Your task to perform on an android device: Empty the shopping cart on target. Search for "macbook pro 15 inch" on target, select the first entry, and add it to the cart. Image 0: 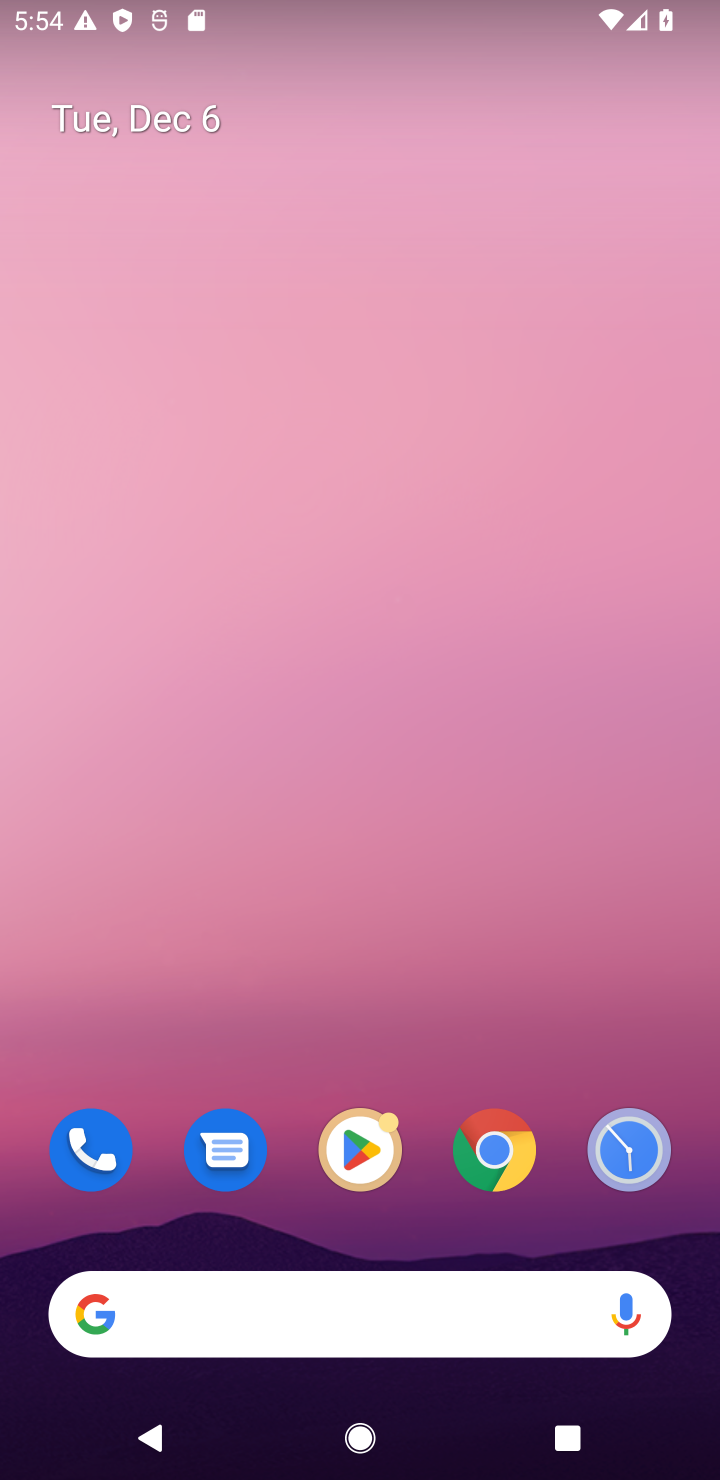
Step 0: click (500, 1166)
Your task to perform on an android device: Empty the shopping cart on target. Search for "macbook pro 15 inch" on target, select the first entry, and add it to the cart. Image 1: 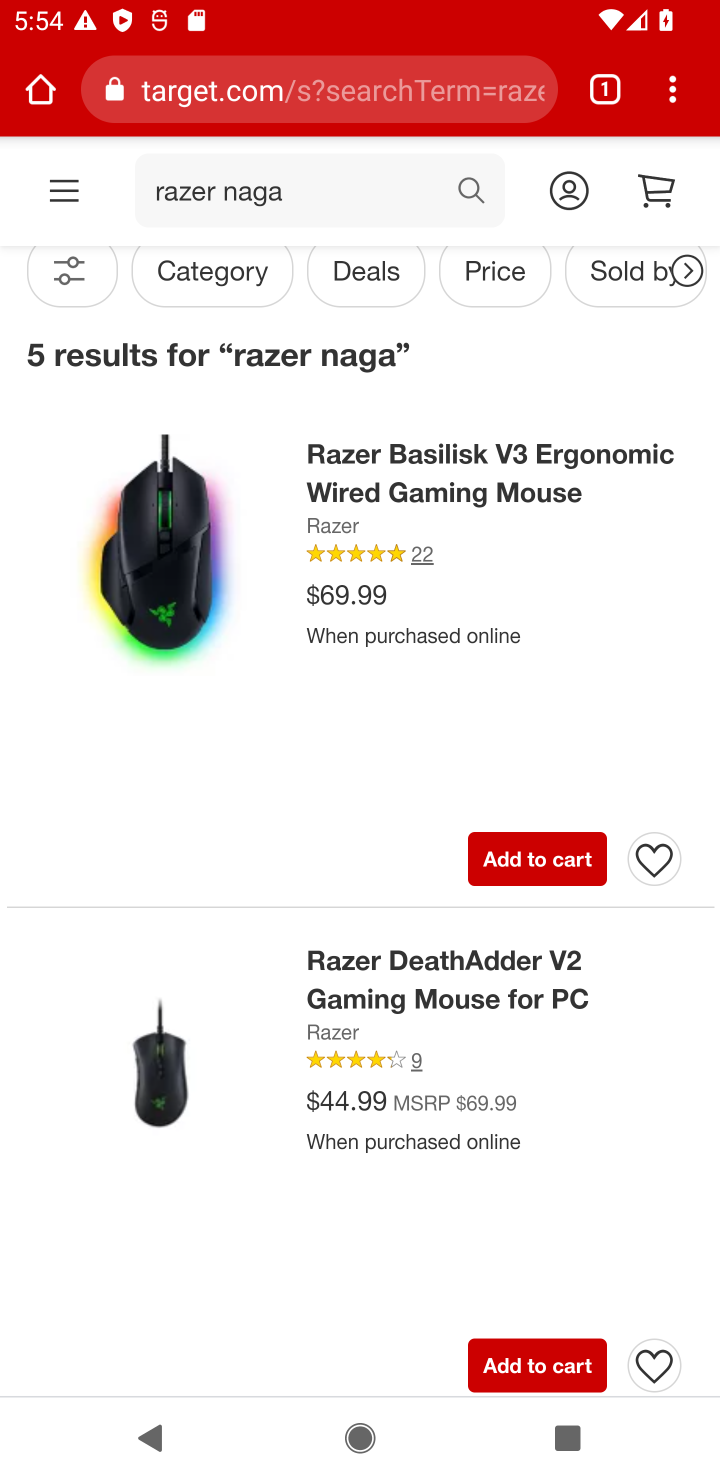
Step 1: click (648, 180)
Your task to perform on an android device: Empty the shopping cart on target. Search for "macbook pro 15 inch" on target, select the first entry, and add it to the cart. Image 2: 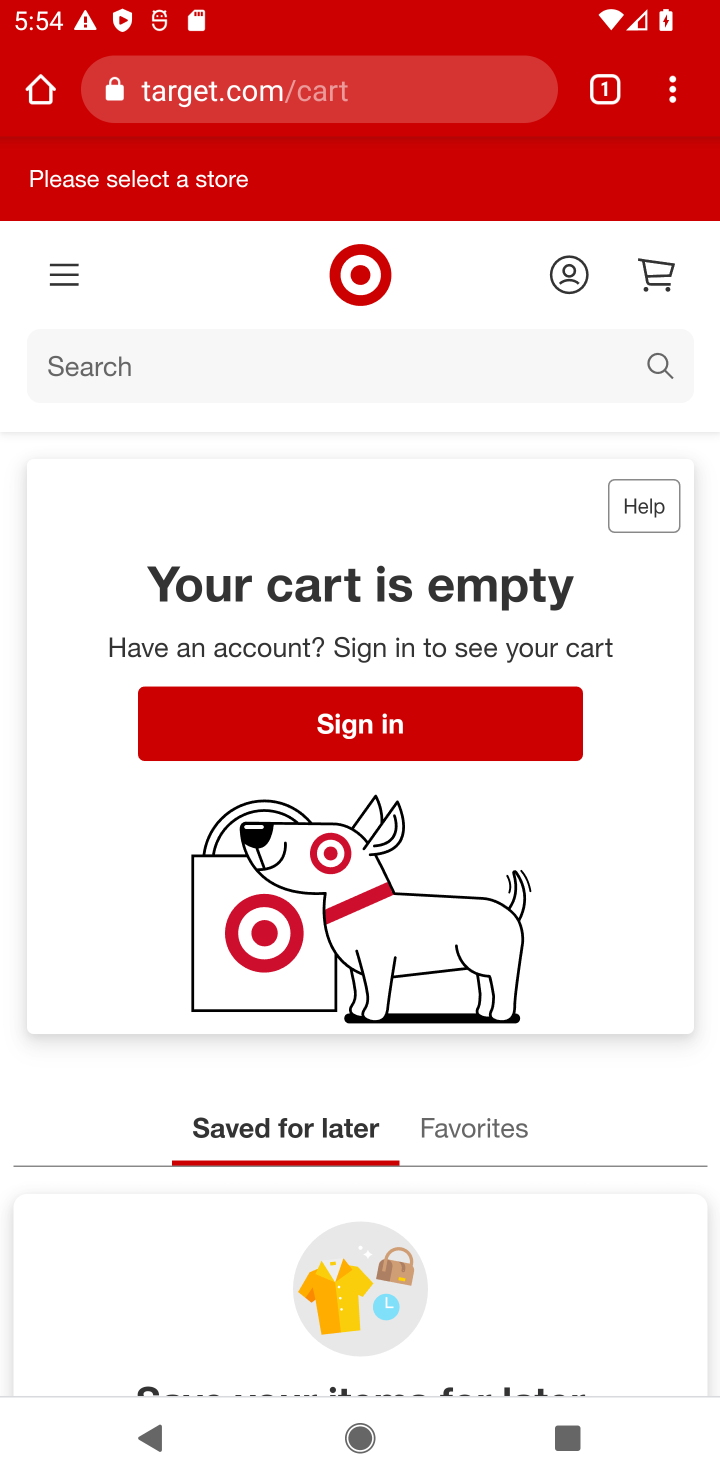
Step 2: click (96, 369)
Your task to perform on an android device: Empty the shopping cart on target. Search for "macbook pro 15 inch" on target, select the first entry, and add it to the cart. Image 3: 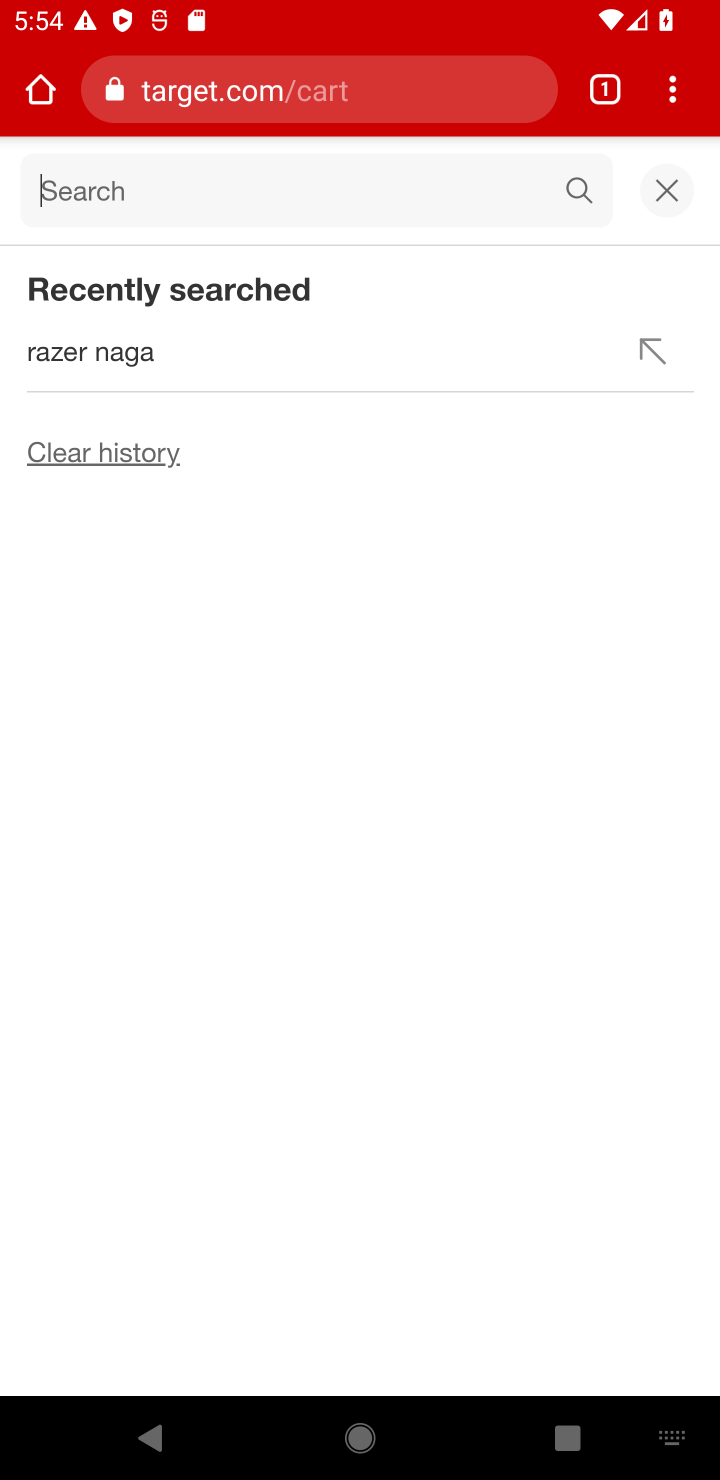
Step 3: type "macbook pro 15 inch"
Your task to perform on an android device: Empty the shopping cart on target. Search for "macbook pro 15 inch" on target, select the first entry, and add it to the cart. Image 4: 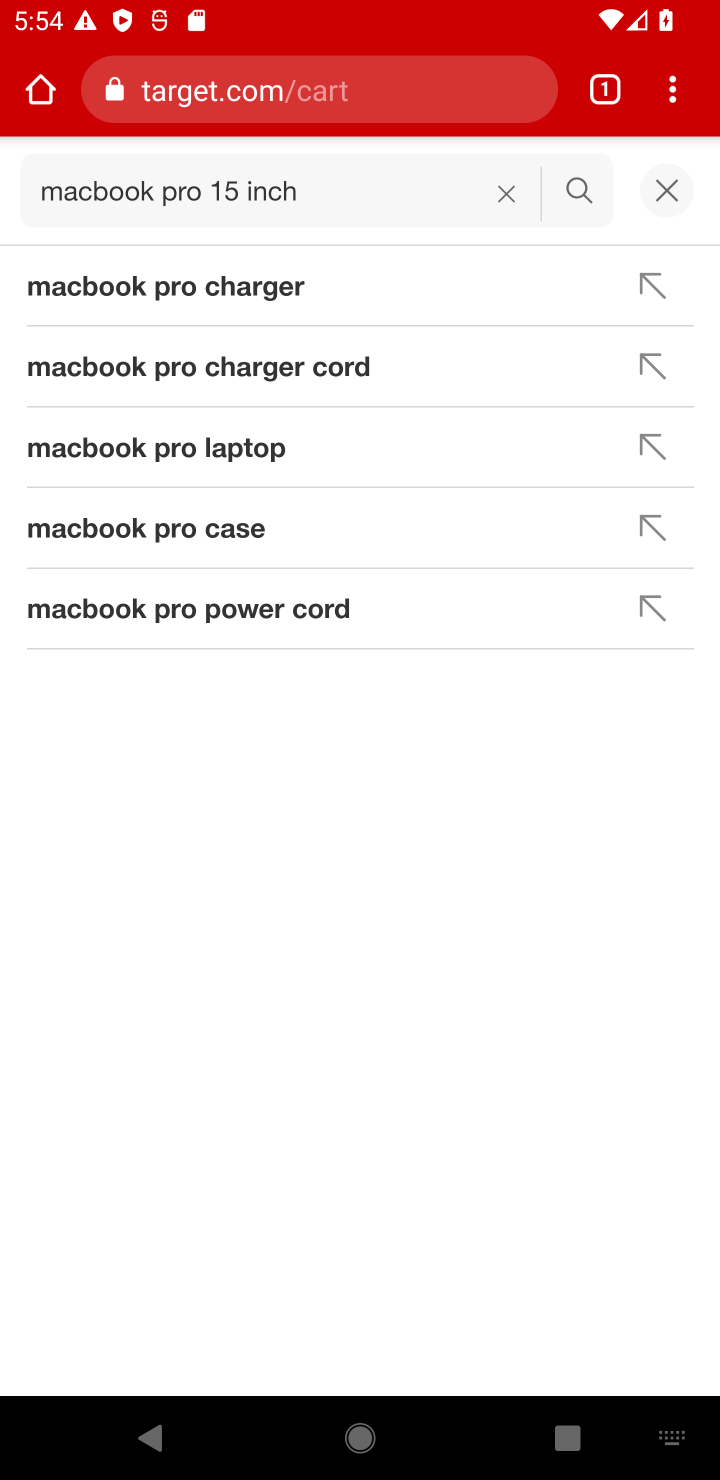
Step 4: click (569, 197)
Your task to perform on an android device: Empty the shopping cart on target. Search for "macbook pro 15 inch" on target, select the first entry, and add it to the cart. Image 5: 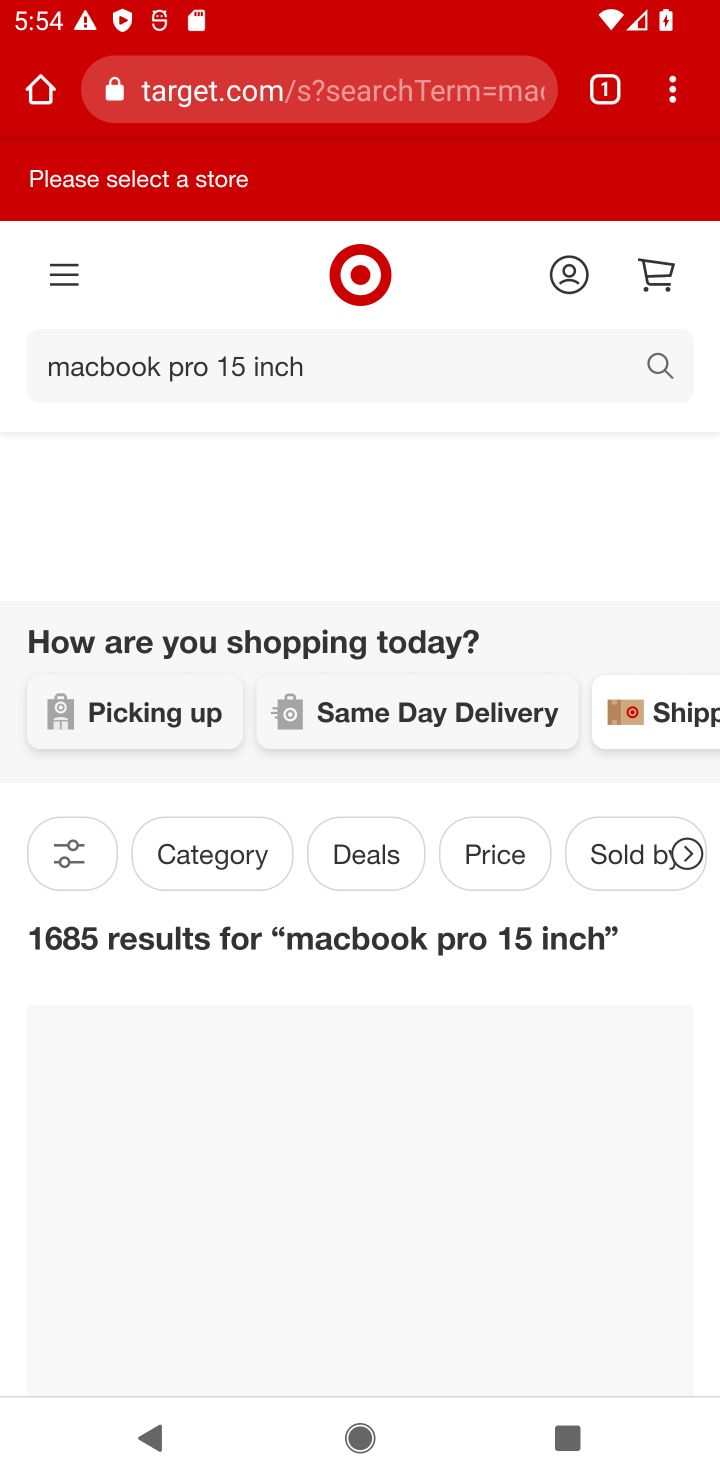
Step 5: drag from (421, 952) to (411, 433)
Your task to perform on an android device: Empty the shopping cart on target. Search for "macbook pro 15 inch" on target, select the first entry, and add it to the cart. Image 6: 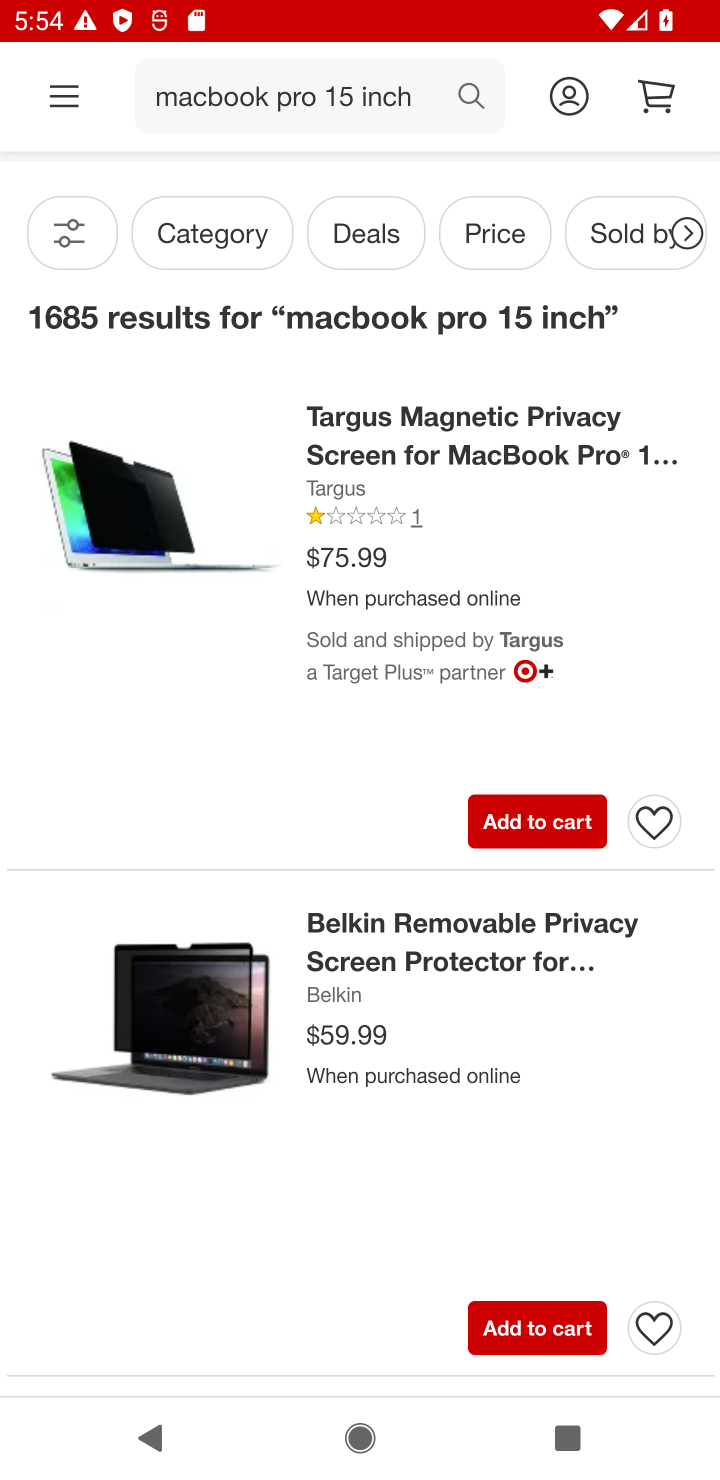
Step 6: click (383, 457)
Your task to perform on an android device: Empty the shopping cart on target. Search for "macbook pro 15 inch" on target, select the first entry, and add it to the cart. Image 7: 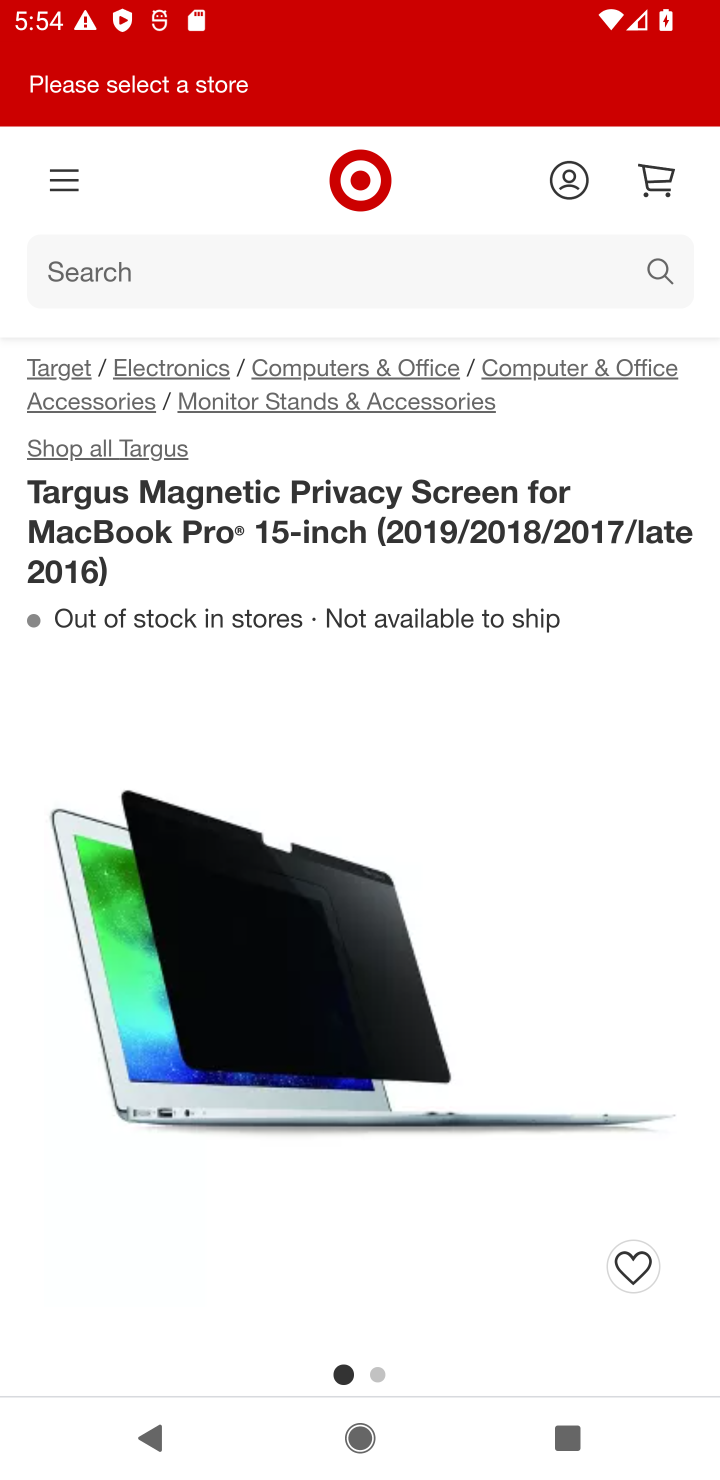
Step 7: drag from (354, 521) to (325, 269)
Your task to perform on an android device: Empty the shopping cart on target. Search for "macbook pro 15 inch" on target, select the first entry, and add it to the cart. Image 8: 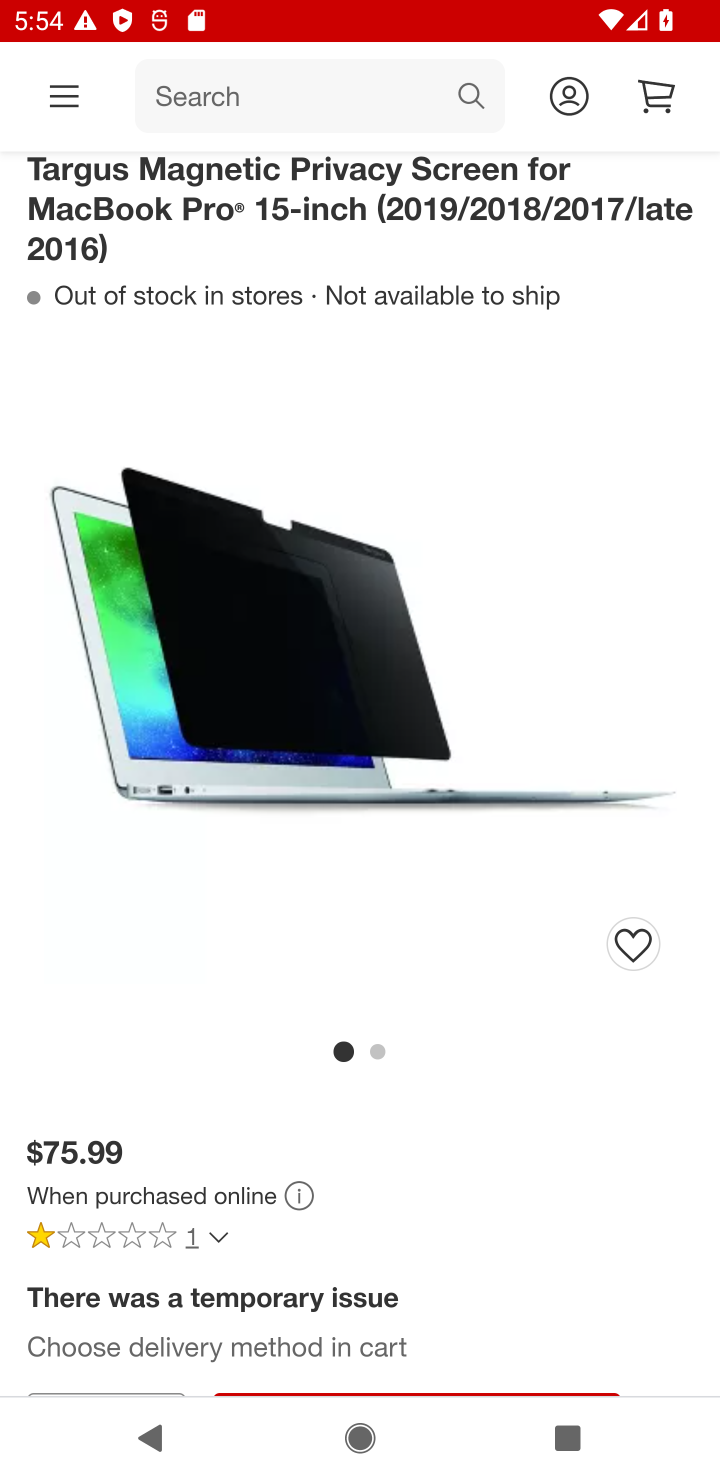
Step 8: drag from (336, 912) to (338, 427)
Your task to perform on an android device: Empty the shopping cart on target. Search for "macbook pro 15 inch" on target, select the first entry, and add it to the cart. Image 9: 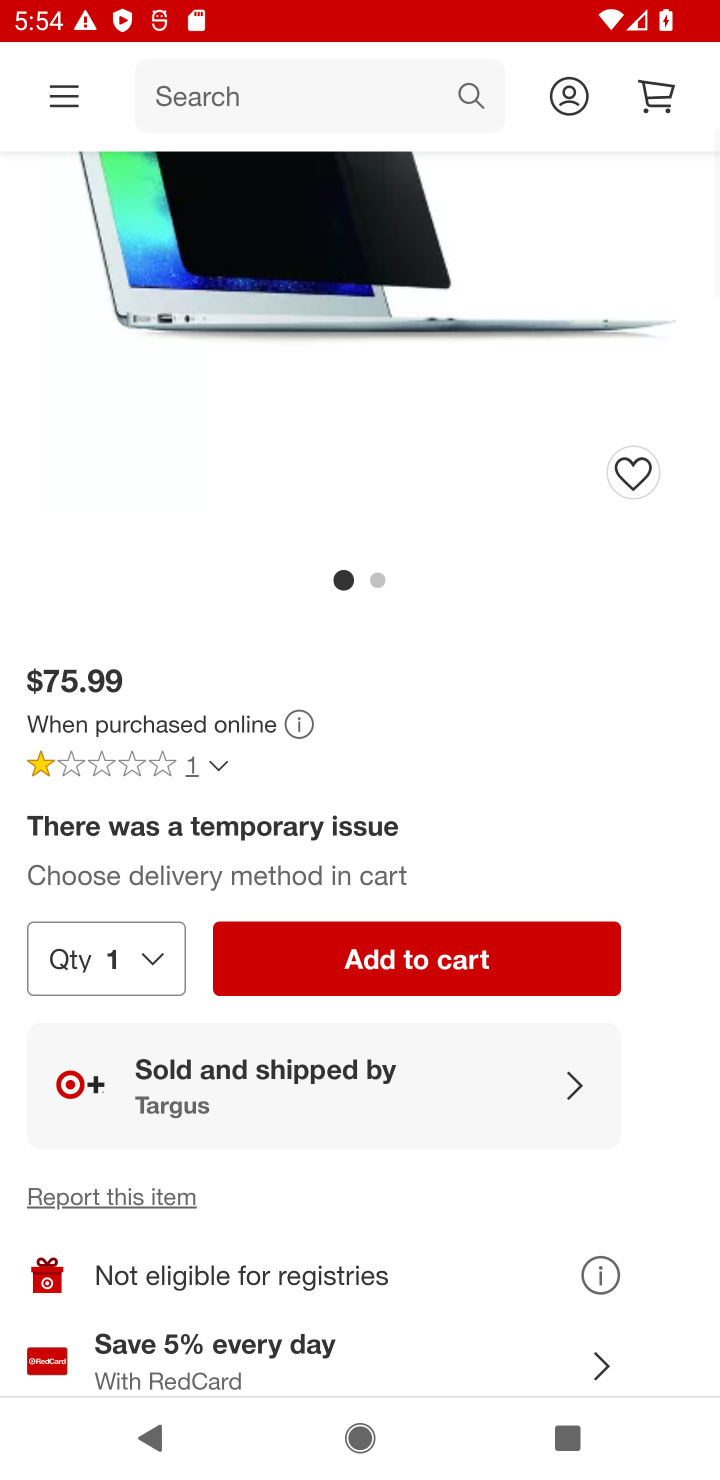
Step 9: click (396, 965)
Your task to perform on an android device: Empty the shopping cart on target. Search for "macbook pro 15 inch" on target, select the first entry, and add it to the cart. Image 10: 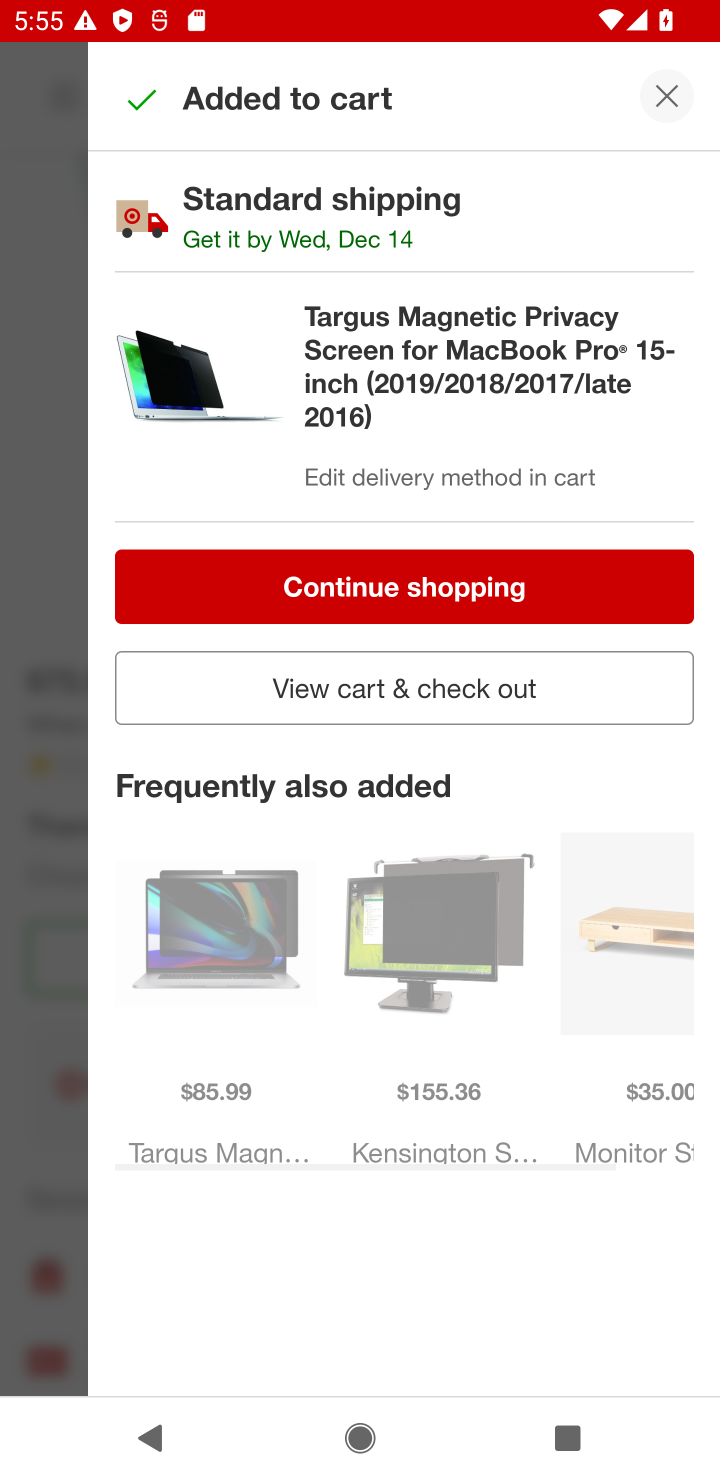
Step 10: task complete